Your task to perform on an android device: star an email in the gmail app Image 0: 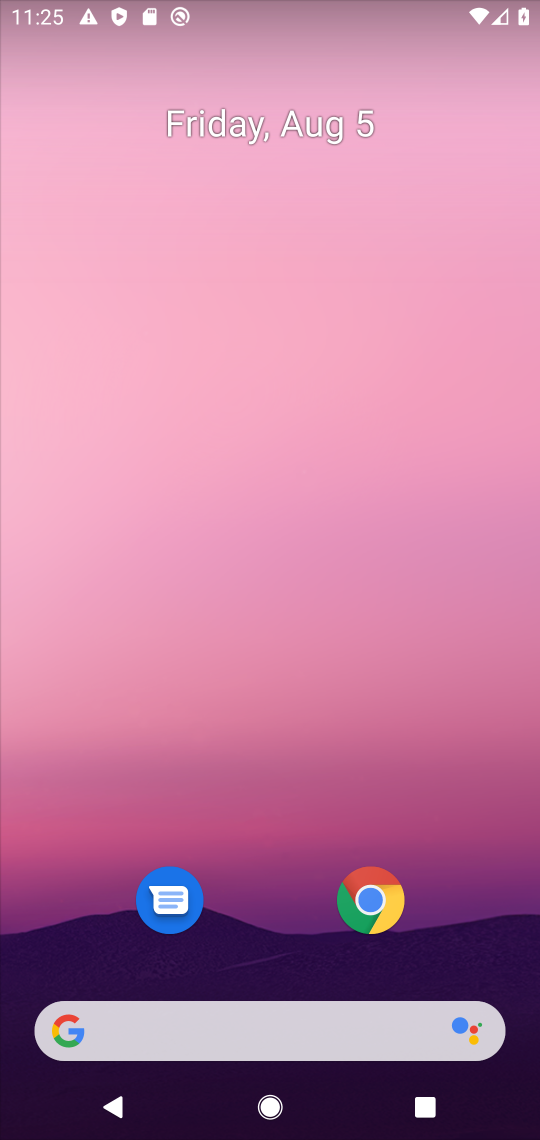
Step 0: drag from (285, 992) to (260, 81)
Your task to perform on an android device: star an email in the gmail app Image 1: 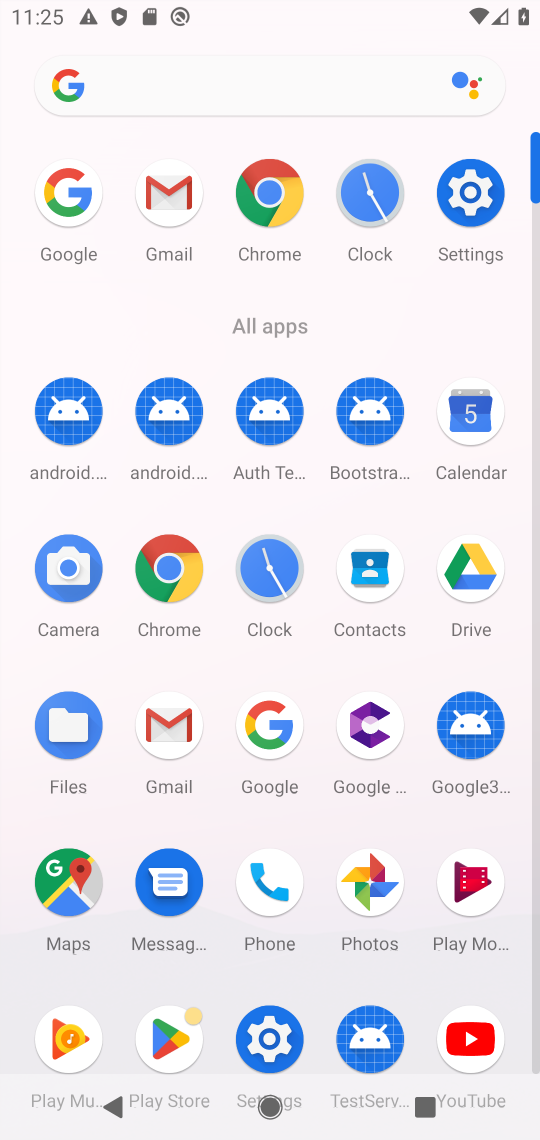
Step 1: click (170, 196)
Your task to perform on an android device: star an email in the gmail app Image 2: 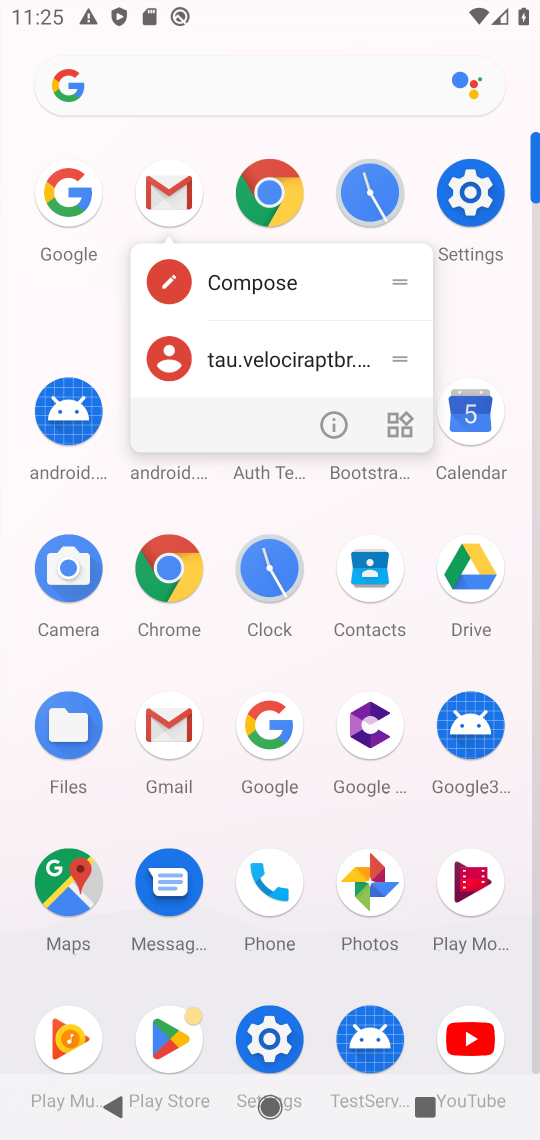
Step 2: click (169, 195)
Your task to perform on an android device: star an email in the gmail app Image 3: 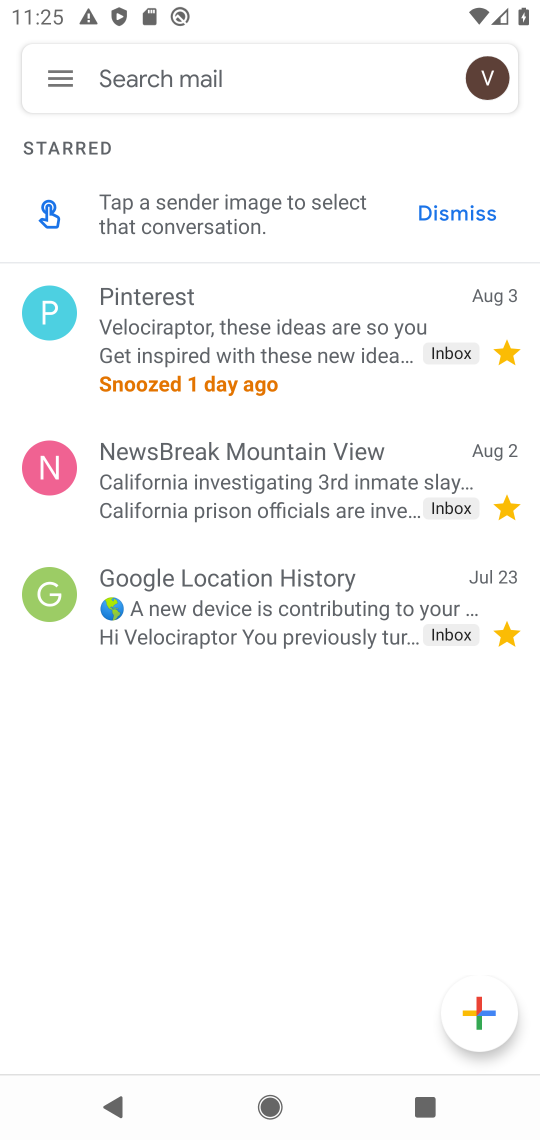
Step 3: task complete